Your task to perform on an android device: turn off improve location accuracy Image 0: 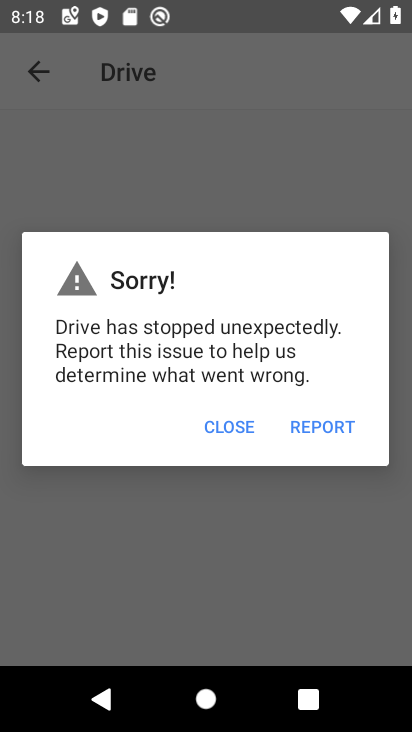
Step 0: press home button
Your task to perform on an android device: turn off improve location accuracy Image 1: 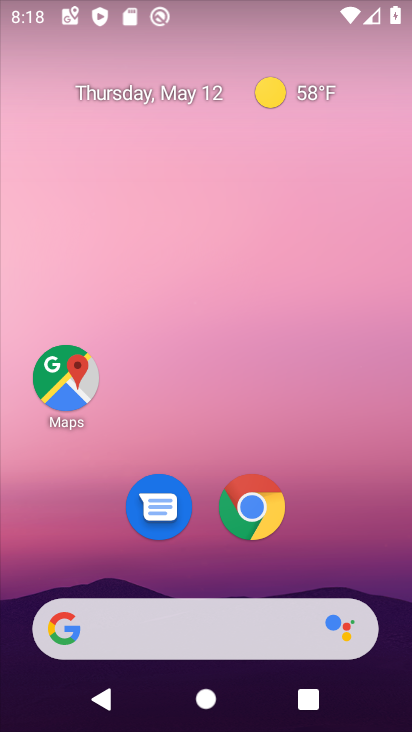
Step 1: drag from (194, 577) to (175, 185)
Your task to perform on an android device: turn off improve location accuracy Image 2: 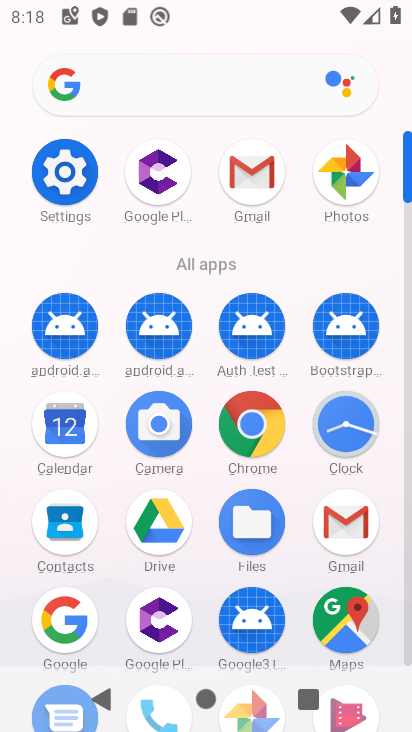
Step 2: click (64, 181)
Your task to perform on an android device: turn off improve location accuracy Image 3: 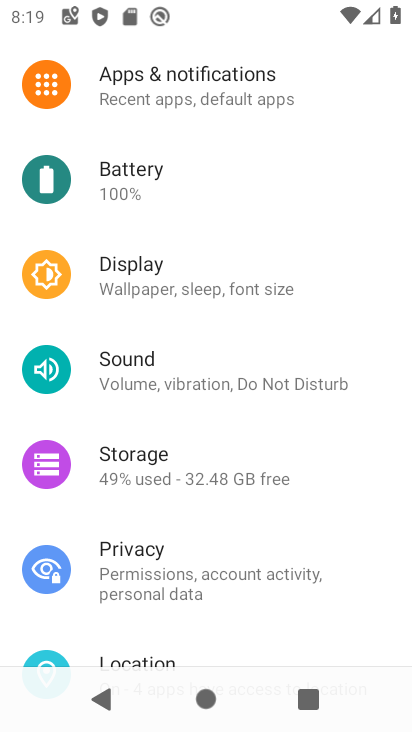
Step 3: click (180, 648)
Your task to perform on an android device: turn off improve location accuracy Image 4: 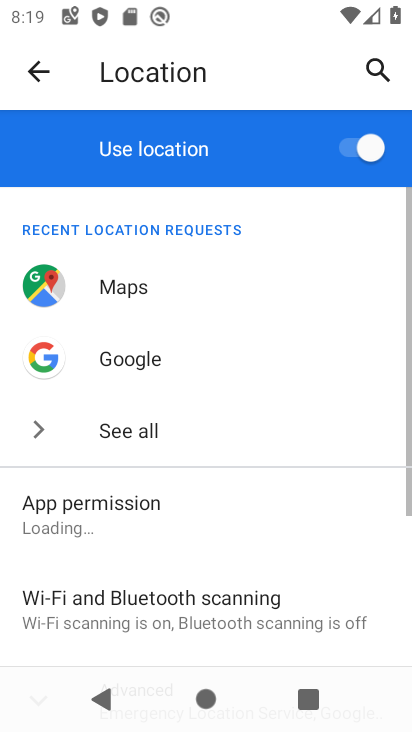
Step 4: drag from (213, 535) to (236, 320)
Your task to perform on an android device: turn off improve location accuracy Image 5: 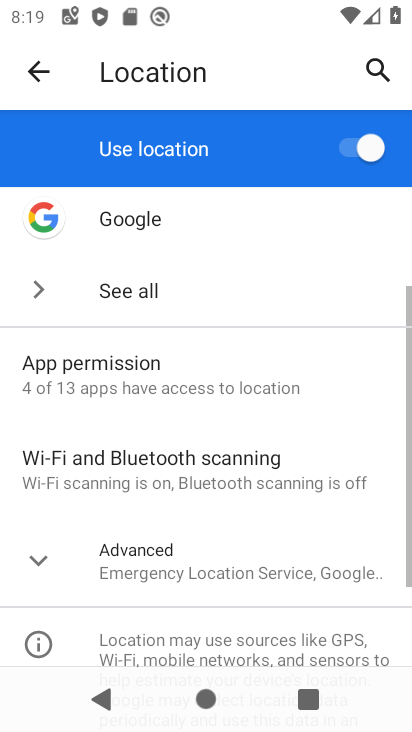
Step 5: click (211, 558)
Your task to perform on an android device: turn off improve location accuracy Image 6: 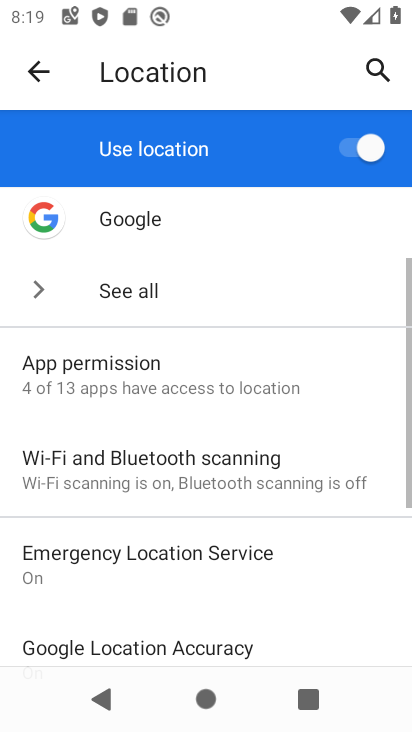
Step 6: drag from (233, 553) to (249, 345)
Your task to perform on an android device: turn off improve location accuracy Image 7: 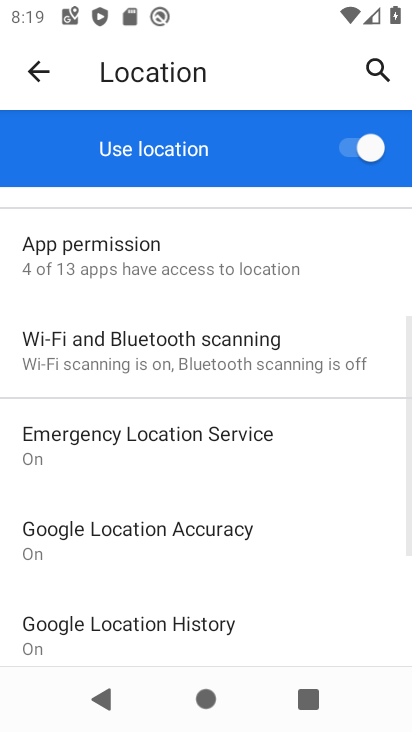
Step 7: click (220, 538)
Your task to perform on an android device: turn off improve location accuracy Image 8: 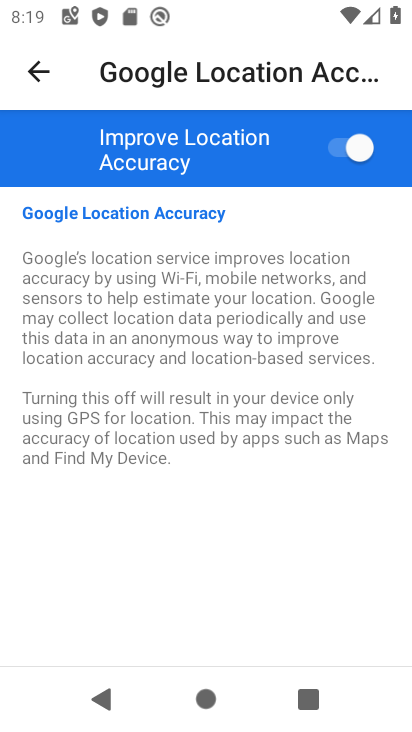
Step 8: click (340, 155)
Your task to perform on an android device: turn off improve location accuracy Image 9: 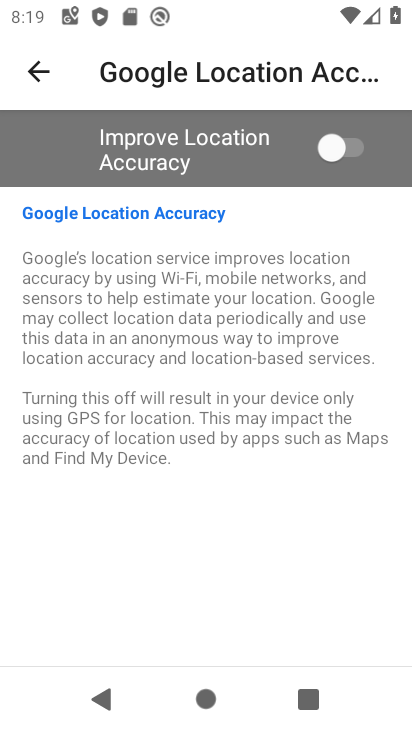
Step 9: task complete